Your task to perform on an android device: allow notifications from all sites in the chrome app Image 0: 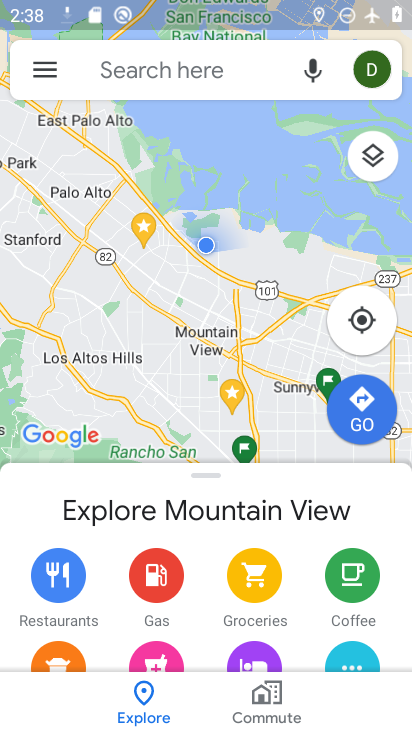
Step 0: press home button
Your task to perform on an android device: allow notifications from all sites in the chrome app Image 1: 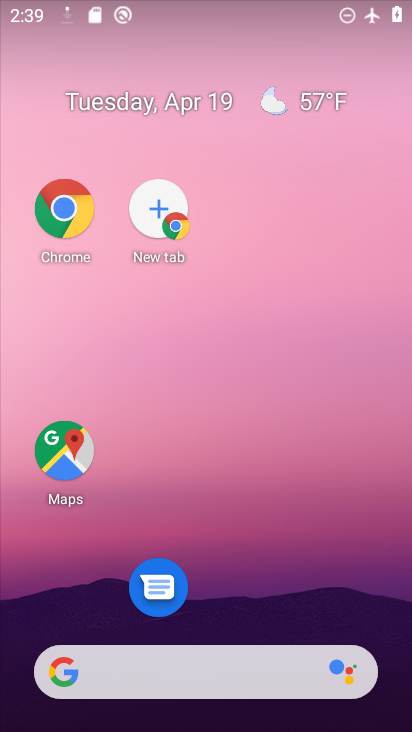
Step 1: drag from (342, 546) to (130, 117)
Your task to perform on an android device: allow notifications from all sites in the chrome app Image 2: 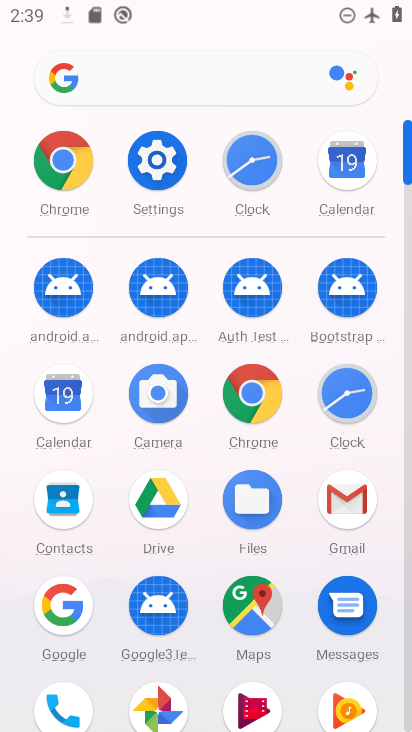
Step 2: click (68, 157)
Your task to perform on an android device: allow notifications from all sites in the chrome app Image 3: 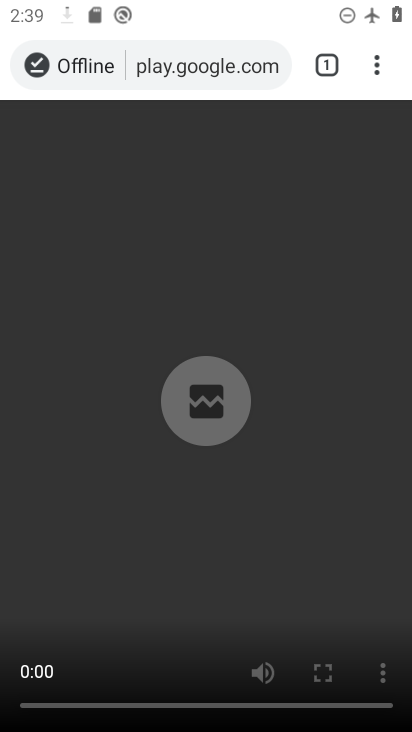
Step 3: click (370, 61)
Your task to perform on an android device: allow notifications from all sites in the chrome app Image 4: 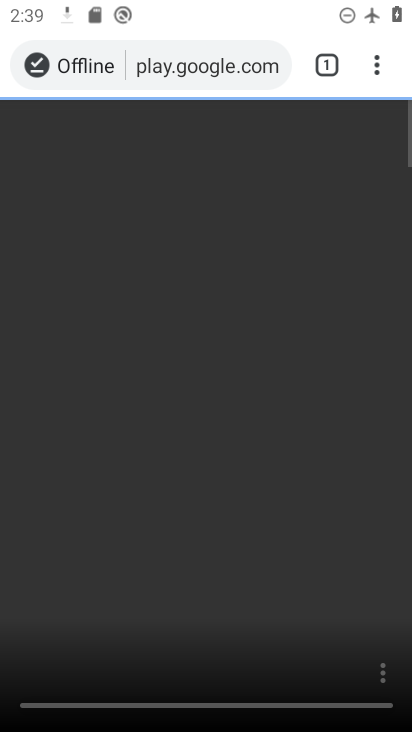
Step 4: click (371, 67)
Your task to perform on an android device: allow notifications from all sites in the chrome app Image 5: 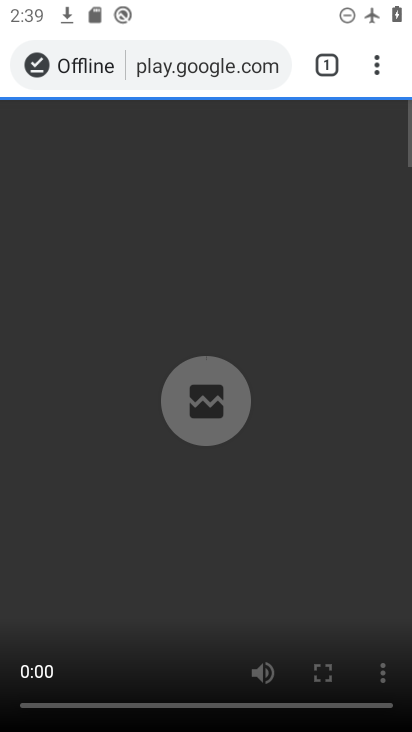
Step 5: click (371, 67)
Your task to perform on an android device: allow notifications from all sites in the chrome app Image 6: 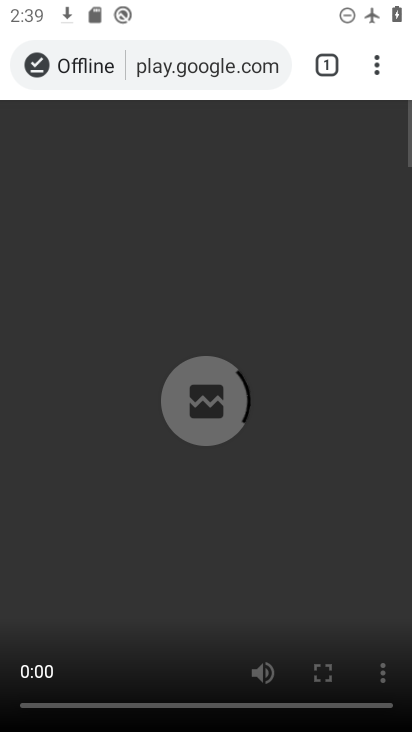
Step 6: drag from (374, 52) to (283, 547)
Your task to perform on an android device: allow notifications from all sites in the chrome app Image 7: 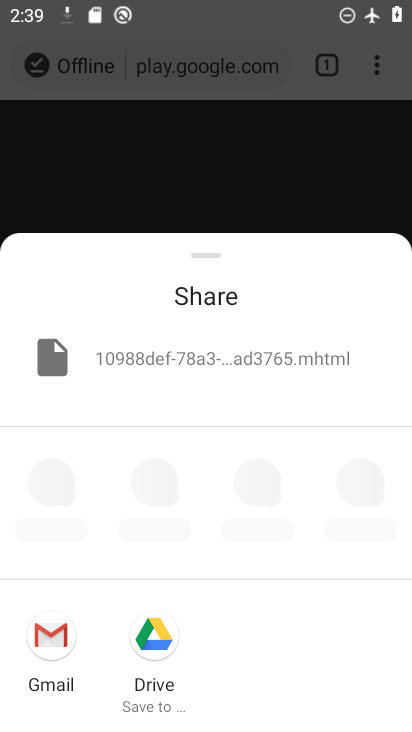
Step 7: click (375, 63)
Your task to perform on an android device: allow notifications from all sites in the chrome app Image 8: 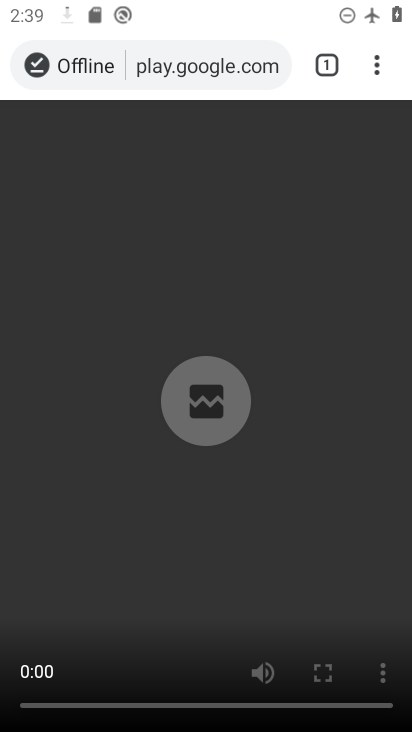
Step 8: click (377, 62)
Your task to perform on an android device: allow notifications from all sites in the chrome app Image 9: 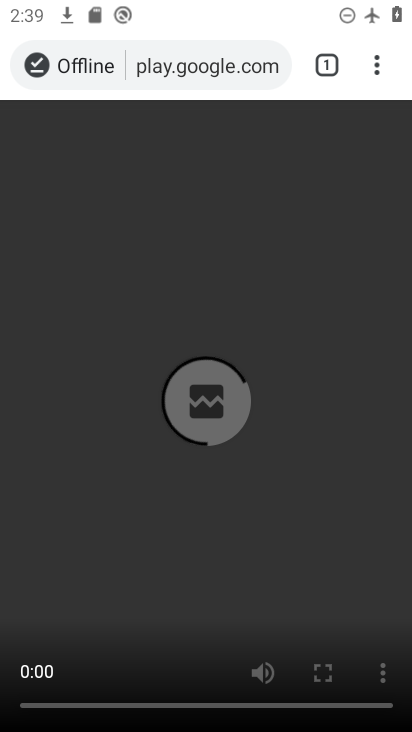
Step 9: click (377, 62)
Your task to perform on an android device: allow notifications from all sites in the chrome app Image 10: 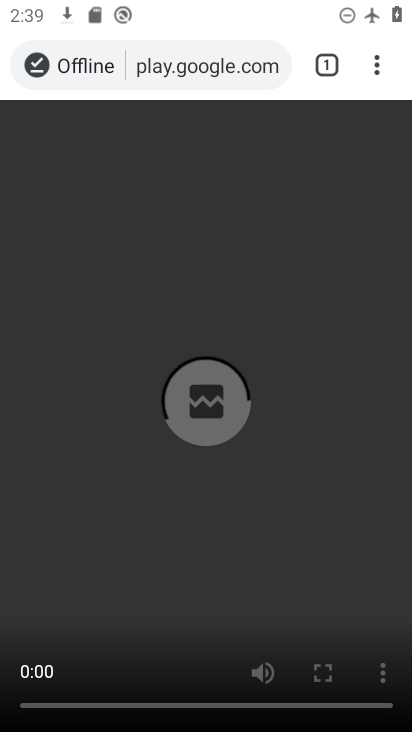
Step 10: click (374, 64)
Your task to perform on an android device: allow notifications from all sites in the chrome app Image 11: 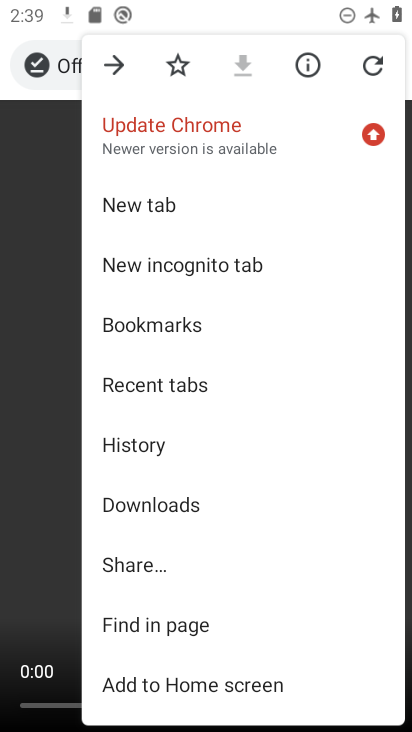
Step 11: drag from (179, 601) to (185, 263)
Your task to perform on an android device: allow notifications from all sites in the chrome app Image 12: 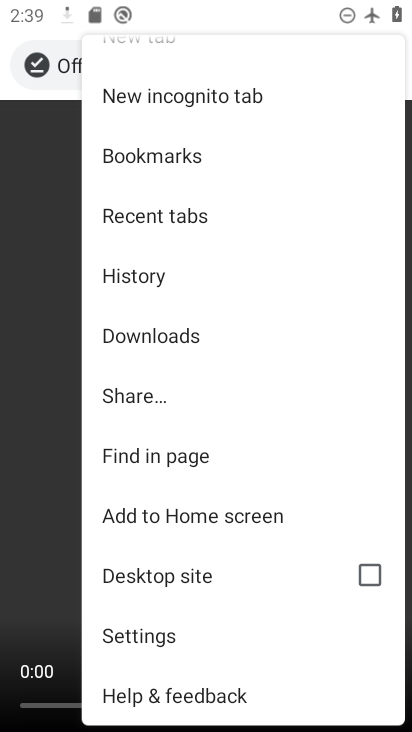
Step 12: click (134, 629)
Your task to perform on an android device: allow notifications from all sites in the chrome app Image 13: 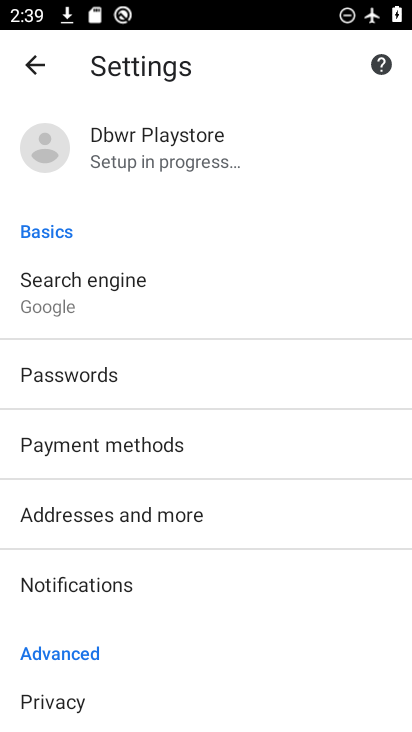
Step 13: drag from (134, 596) to (158, 293)
Your task to perform on an android device: allow notifications from all sites in the chrome app Image 14: 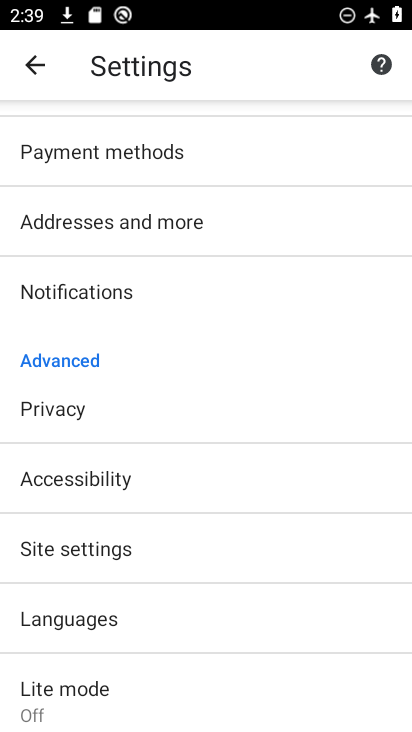
Step 14: click (84, 544)
Your task to perform on an android device: allow notifications from all sites in the chrome app Image 15: 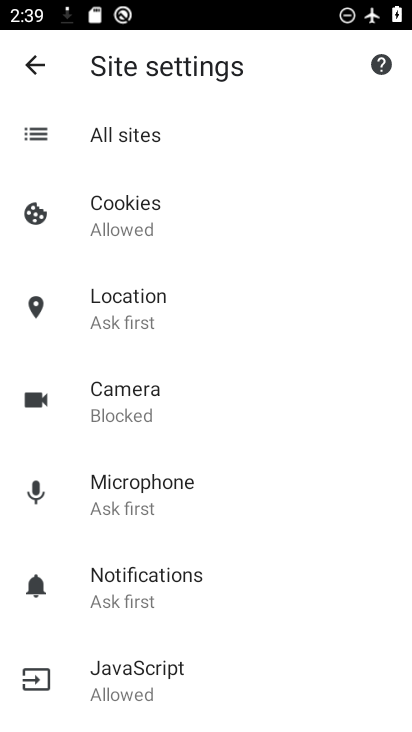
Step 15: click (109, 141)
Your task to perform on an android device: allow notifications from all sites in the chrome app Image 16: 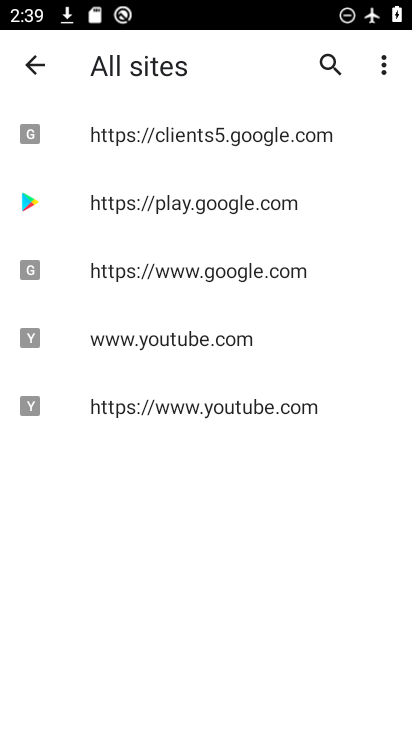
Step 16: click (172, 131)
Your task to perform on an android device: allow notifications from all sites in the chrome app Image 17: 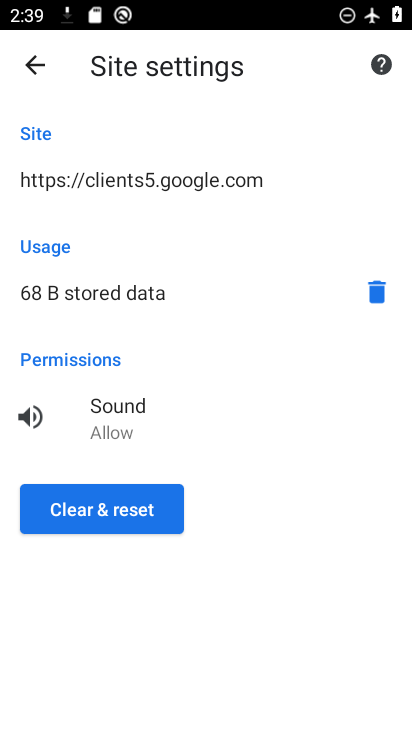
Step 17: click (114, 183)
Your task to perform on an android device: allow notifications from all sites in the chrome app Image 18: 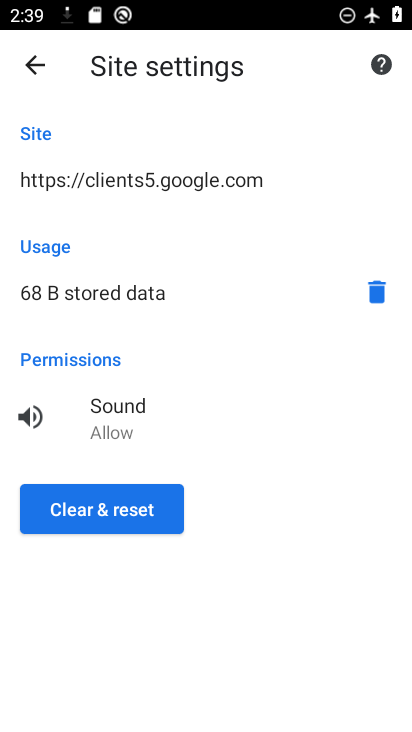
Step 18: click (114, 183)
Your task to perform on an android device: allow notifications from all sites in the chrome app Image 19: 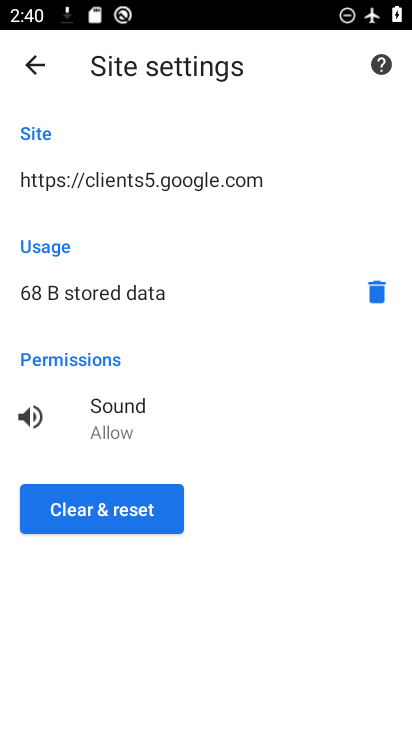
Step 19: click (114, 183)
Your task to perform on an android device: allow notifications from all sites in the chrome app Image 20: 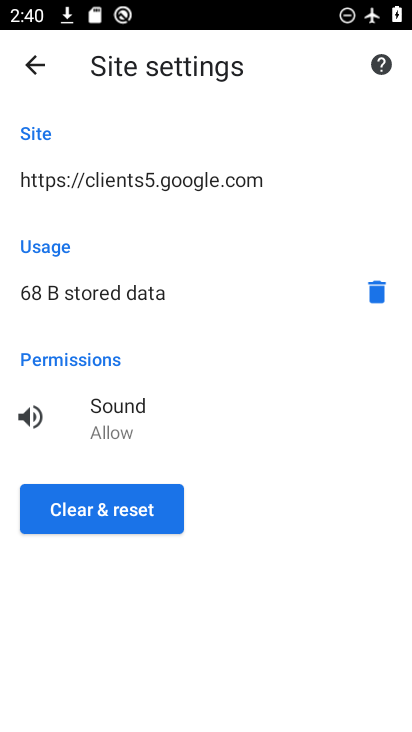
Step 20: click (104, 520)
Your task to perform on an android device: allow notifications from all sites in the chrome app Image 21: 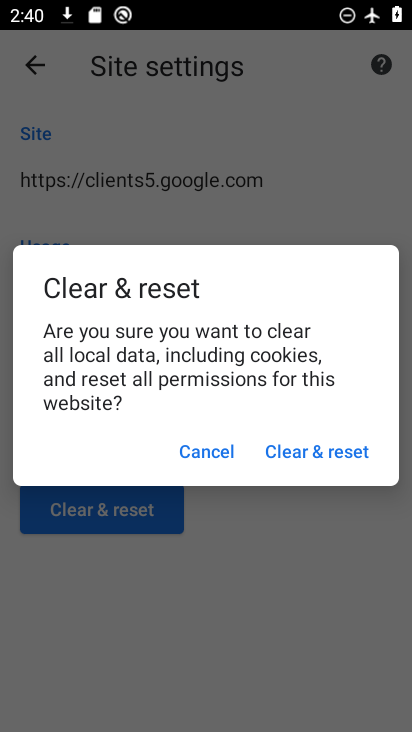
Step 21: click (301, 446)
Your task to perform on an android device: allow notifications from all sites in the chrome app Image 22: 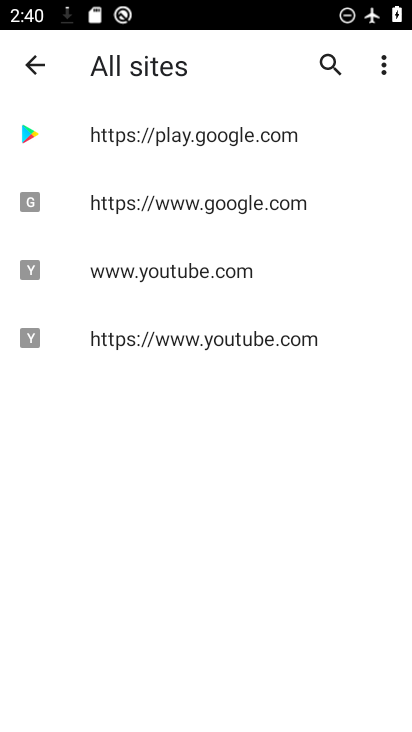
Step 22: click (229, 141)
Your task to perform on an android device: allow notifications from all sites in the chrome app Image 23: 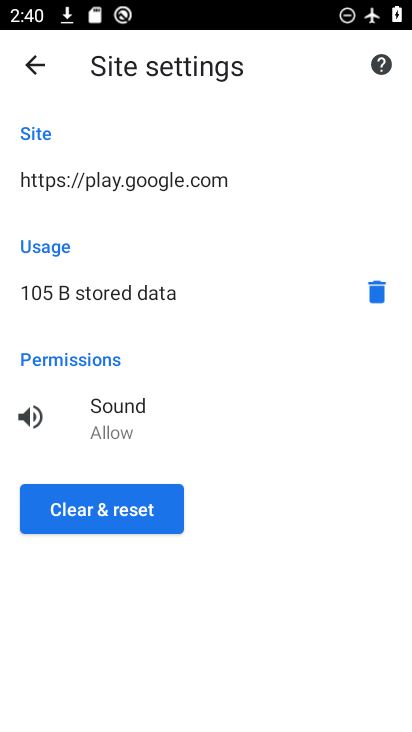
Step 23: task complete